Your task to perform on an android device: Go to sound settings Image 0: 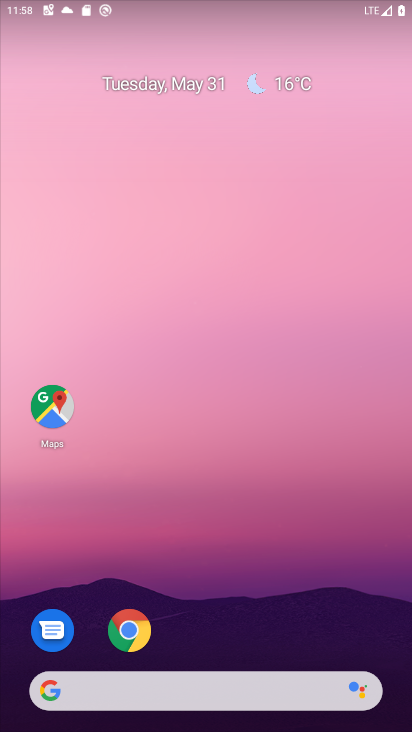
Step 0: drag from (304, 650) to (317, 111)
Your task to perform on an android device: Go to sound settings Image 1: 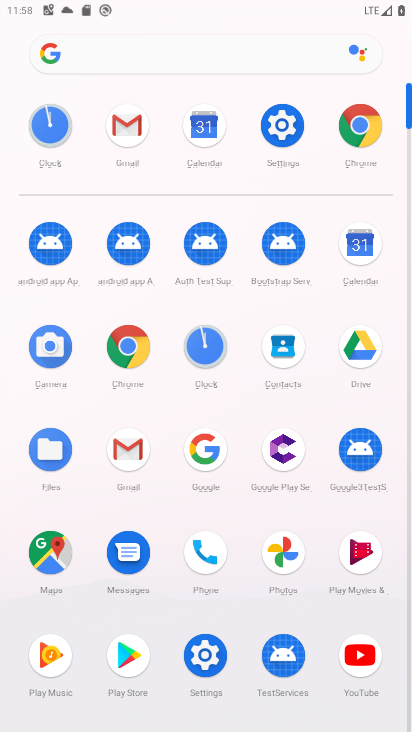
Step 1: click (277, 133)
Your task to perform on an android device: Go to sound settings Image 2: 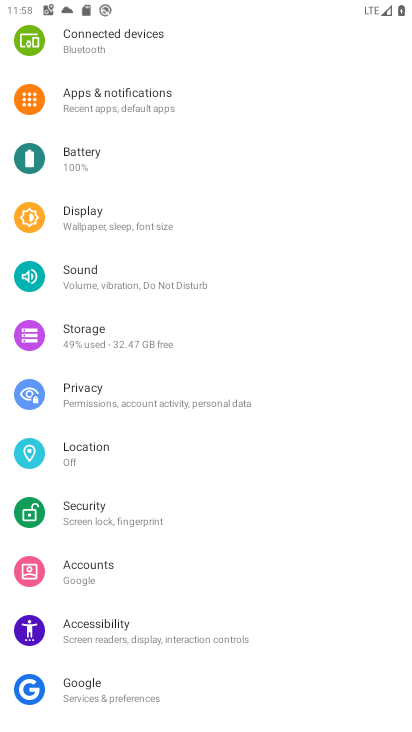
Step 2: click (187, 285)
Your task to perform on an android device: Go to sound settings Image 3: 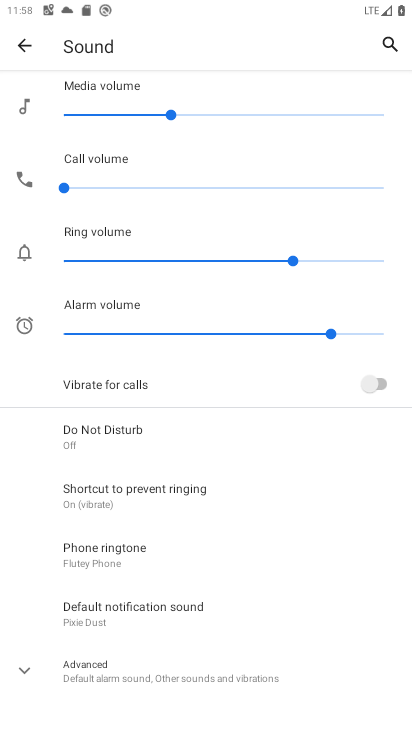
Step 3: task complete